Your task to perform on an android device: turn on showing notifications on the lock screen Image 0: 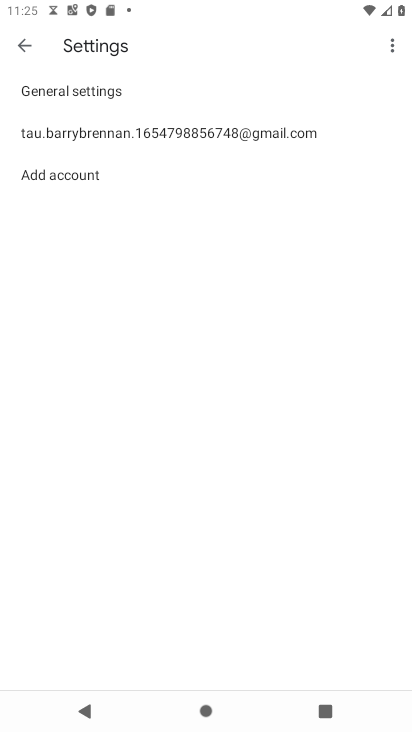
Step 0: press home button
Your task to perform on an android device: turn on showing notifications on the lock screen Image 1: 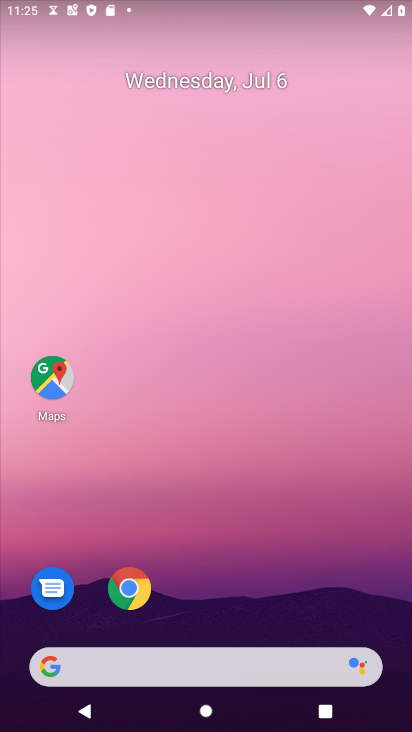
Step 1: drag from (233, 609) to (217, 244)
Your task to perform on an android device: turn on showing notifications on the lock screen Image 2: 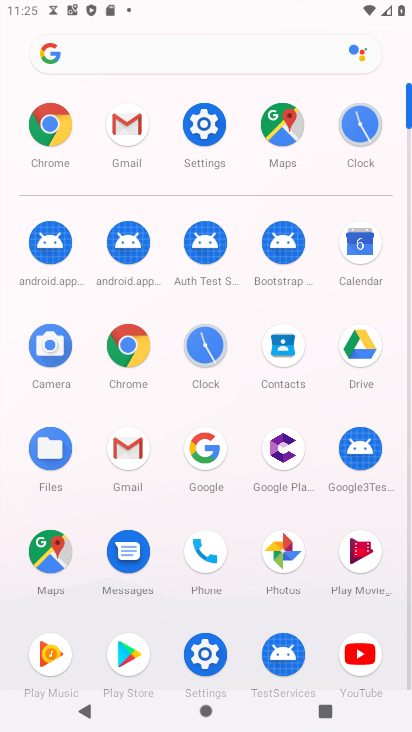
Step 2: click (211, 132)
Your task to perform on an android device: turn on showing notifications on the lock screen Image 3: 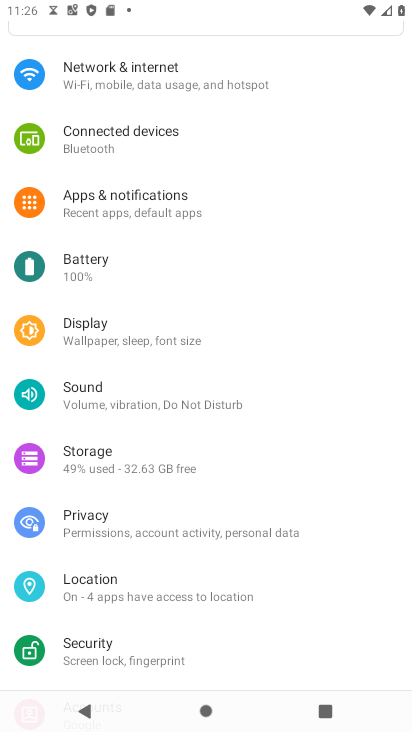
Step 3: drag from (163, 98) to (178, 254)
Your task to perform on an android device: turn on showing notifications on the lock screen Image 4: 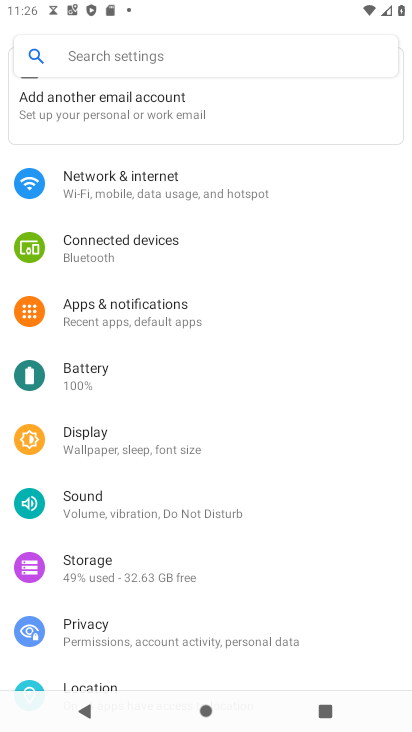
Step 4: drag from (148, 185) to (148, 102)
Your task to perform on an android device: turn on showing notifications on the lock screen Image 5: 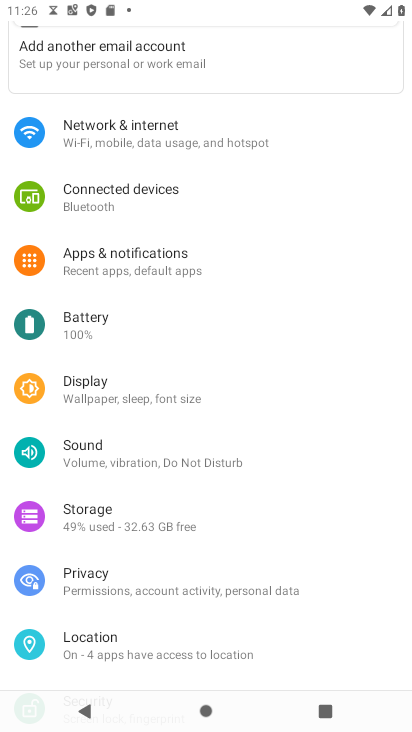
Step 5: click (116, 269)
Your task to perform on an android device: turn on showing notifications on the lock screen Image 6: 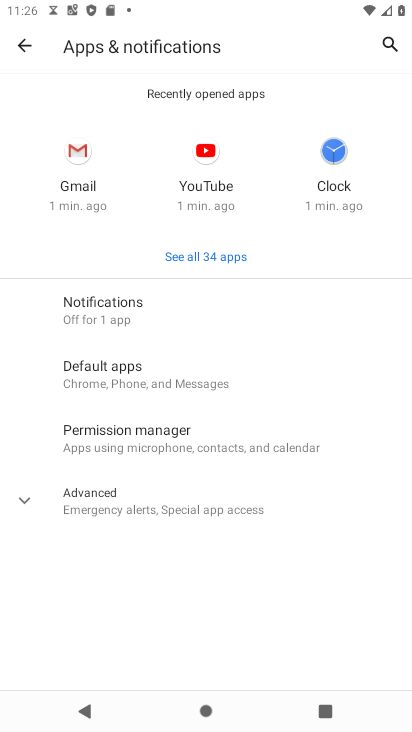
Step 6: click (129, 306)
Your task to perform on an android device: turn on showing notifications on the lock screen Image 7: 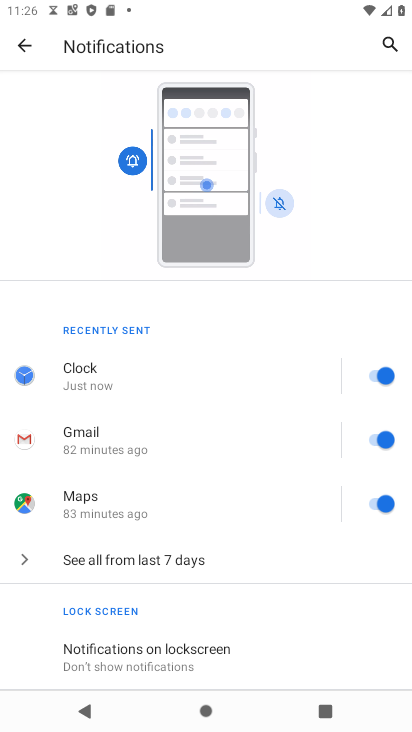
Step 7: click (216, 648)
Your task to perform on an android device: turn on showing notifications on the lock screen Image 8: 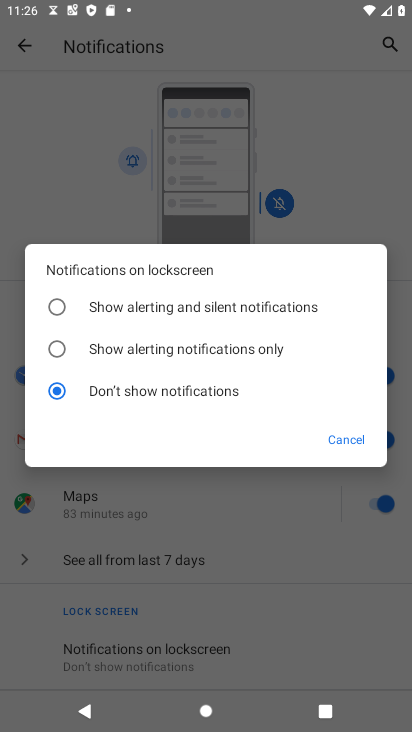
Step 8: click (145, 316)
Your task to perform on an android device: turn on showing notifications on the lock screen Image 9: 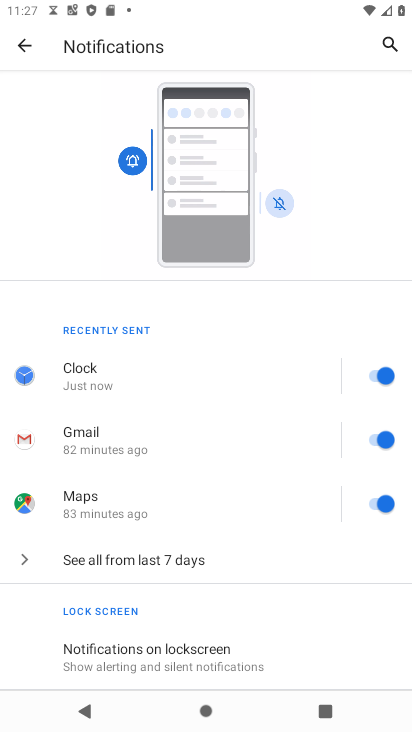
Step 9: task complete